Your task to perform on an android device: toggle translation in the chrome app Image 0: 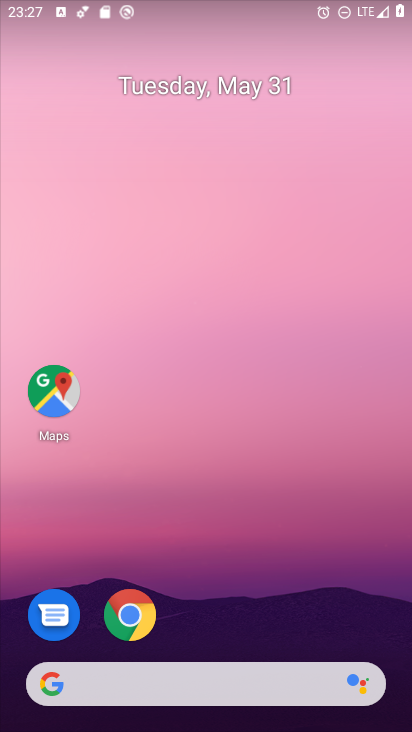
Step 0: click (129, 607)
Your task to perform on an android device: toggle translation in the chrome app Image 1: 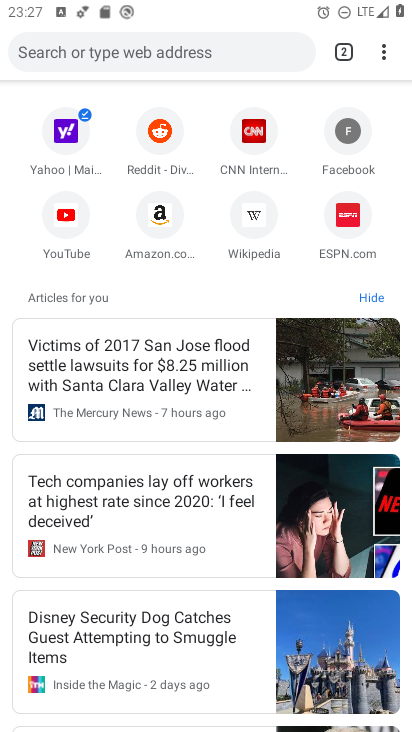
Step 1: click (385, 54)
Your task to perform on an android device: toggle translation in the chrome app Image 2: 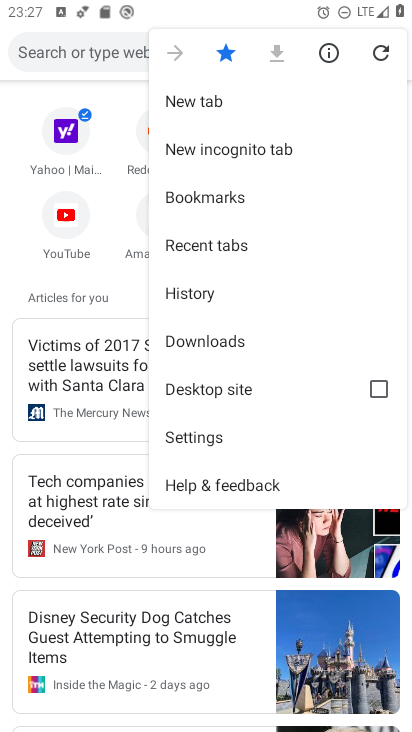
Step 2: click (205, 436)
Your task to perform on an android device: toggle translation in the chrome app Image 3: 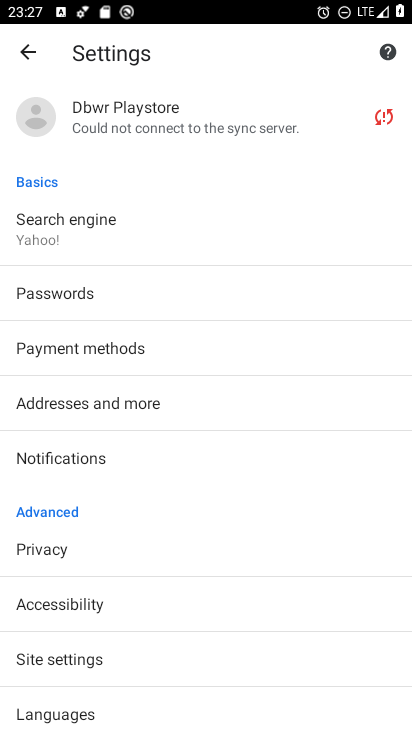
Step 3: drag from (155, 700) to (188, 349)
Your task to perform on an android device: toggle translation in the chrome app Image 4: 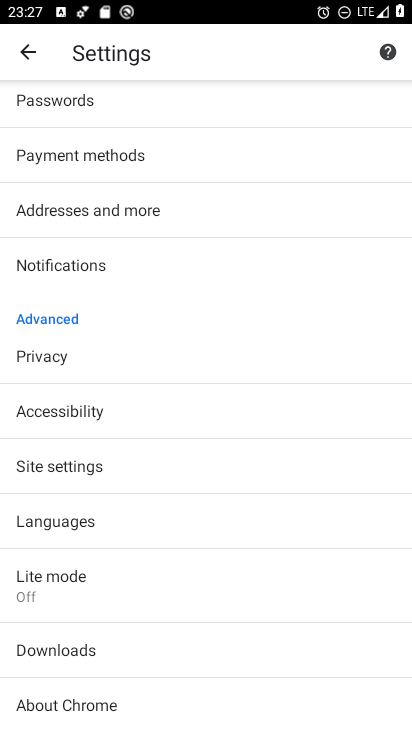
Step 4: click (72, 534)
Your task to perform on an android device: toggle translation in the chrome app Image 5: 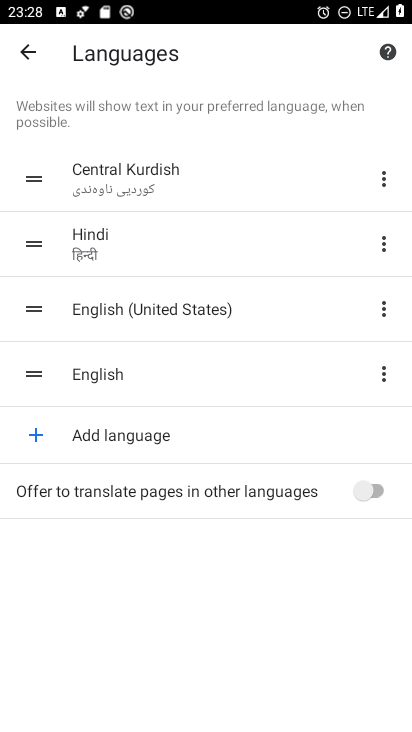
Step 5: click (378, 490)
Your task to perform on an android device: toggle translation in the chrome app Image 6: 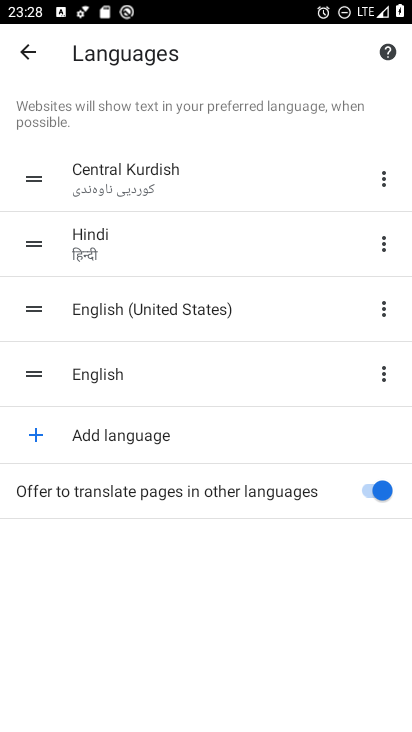
Step 6: task complete